Your task to perform on an android device: What's the weather? Image 0: 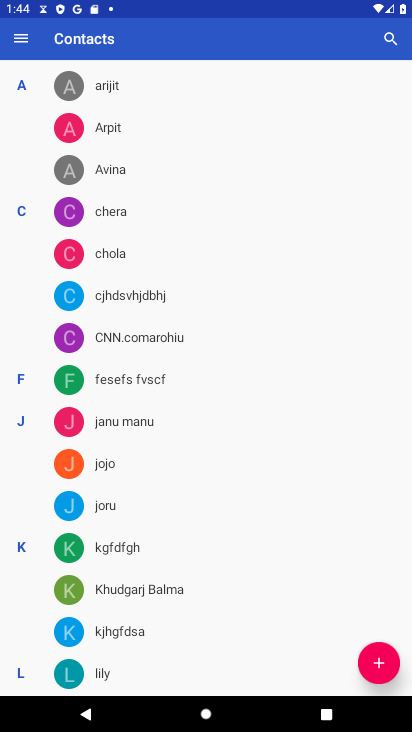
Step 0: press home button
Your task to perform on an android device: What's the weather? Image 1: 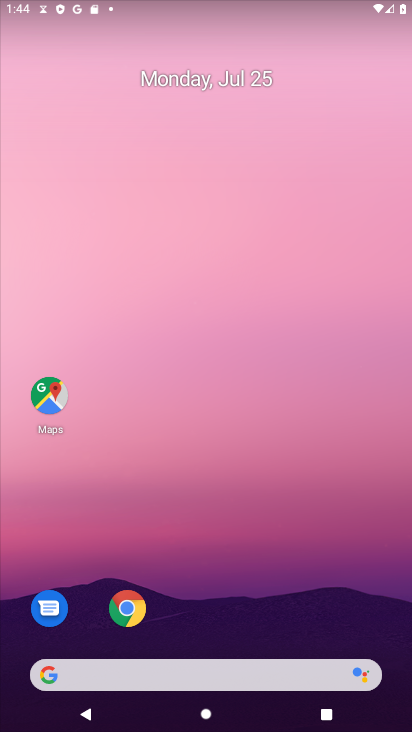
Step 1: drag from (168, 674) to (267, 222)
Your task to perform on an android device: What's the weather? Image 2: 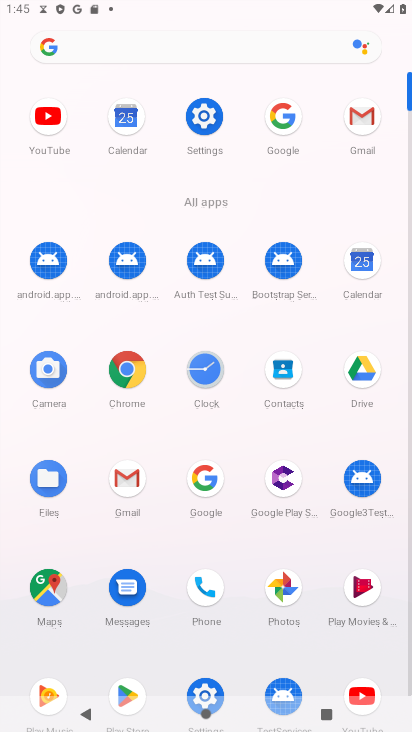
Step 2: click (281, 113)
Your task to perform on an android device: What's the weather? Image 3: 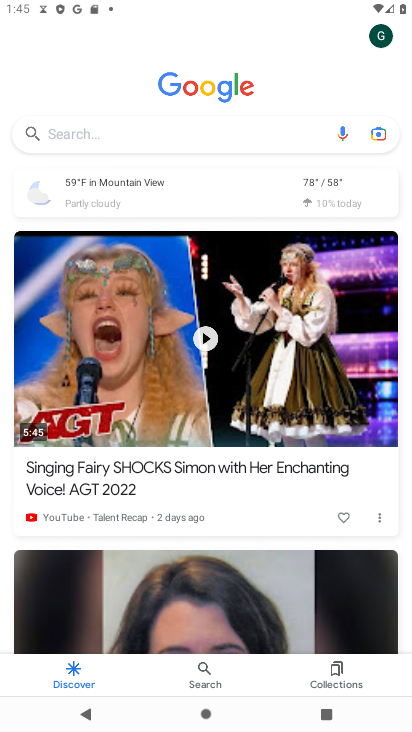
Step 3: click (208, 182)
Your task to perform on an android device: What's the weather? Image 4: 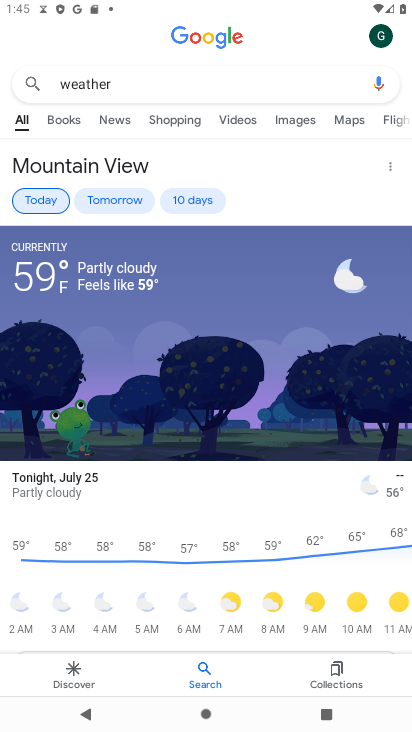
Step 4: task complete